Your task to perform on an android device: delete location history Image 0: 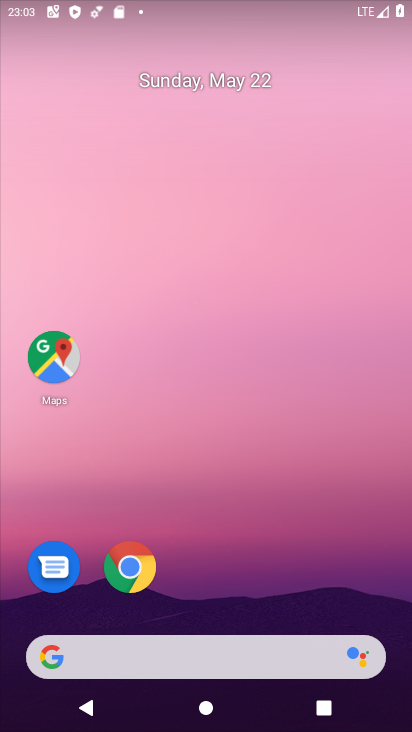
Step 0: click (57, 358)
Your task to perform on an android device: delete location history Image 1: 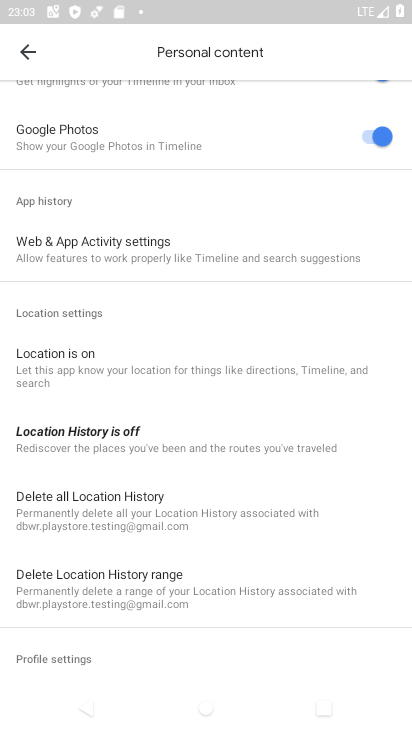
Step 1: click (69, 495)
Your task to perform on an android device: delete location history Image 2: 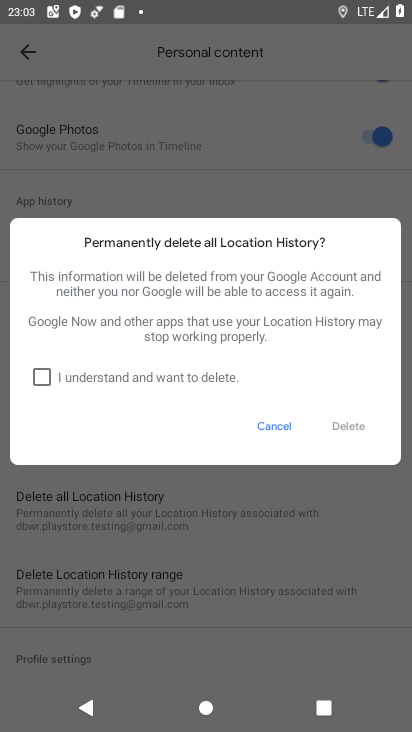
Step 2: click (41, 380)
Your task to perform on an android device: delete location history Image 3: 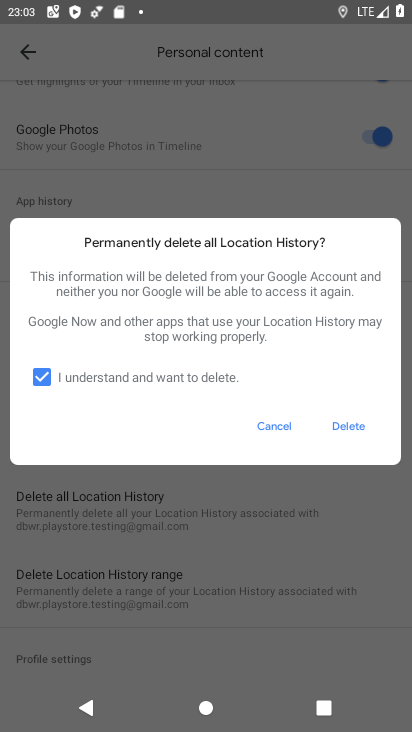
Step 3: click (348, 424)
Your task to perform on an android device: delete location history Image 4: 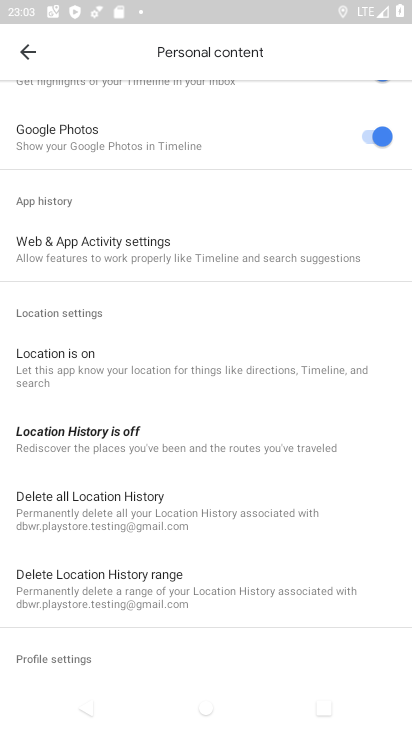
Step 4: task complete